Your task to perform on an android device: Open CNN.com Image 0: 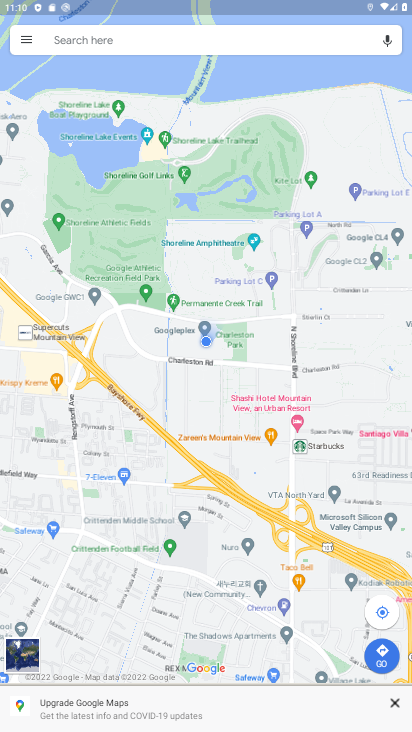
Step 0: press home button
Your task to perform on an android device: Open CNN.com Image 1: 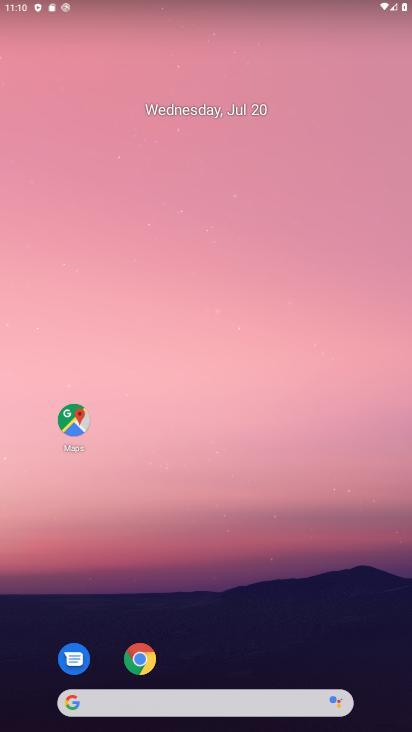
Step 1: click (135, 653)
Your task to perform on an android device: Open CNN.com Image 2: 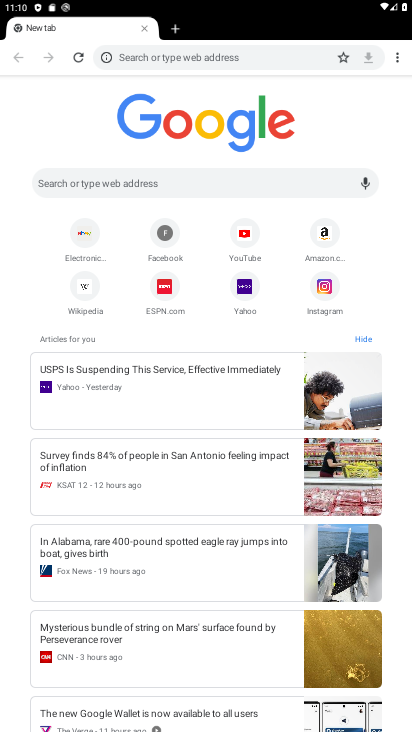
Step 2: click (214, 179)
Your task to perform on an android device: Open CNN.com Image 3: 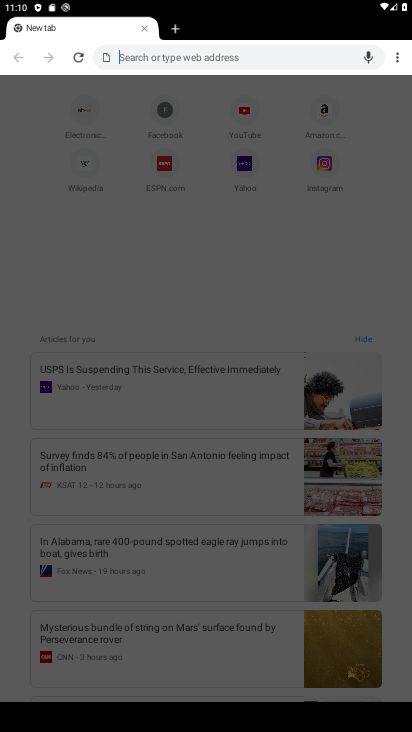
Step 3: type "cnn.com"
Your task to perform on an android device: Open CNN.com Image 4: 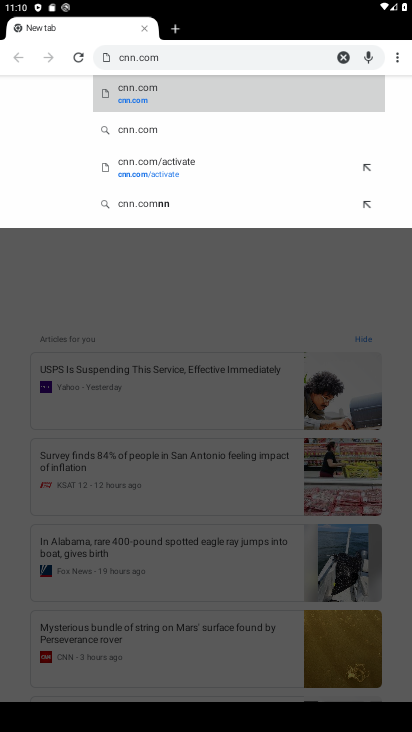
Step 4: click (172, 102)
Your task to perform on an android device: Open CNN.com Image 5: 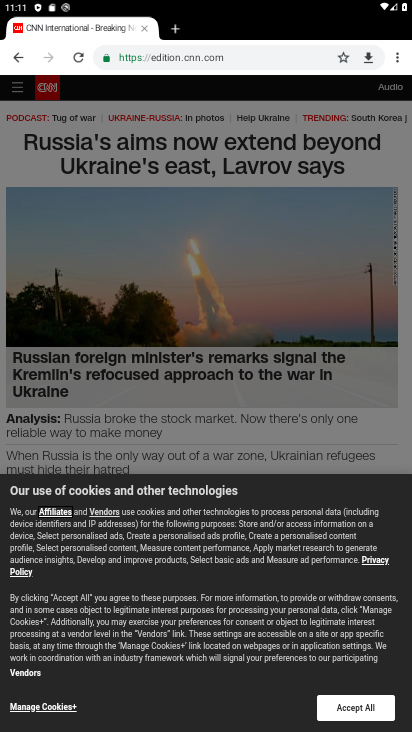
Step 5: task complete